Your task to perform on an android device: turn off priority inbox in the gmail app Image 0: 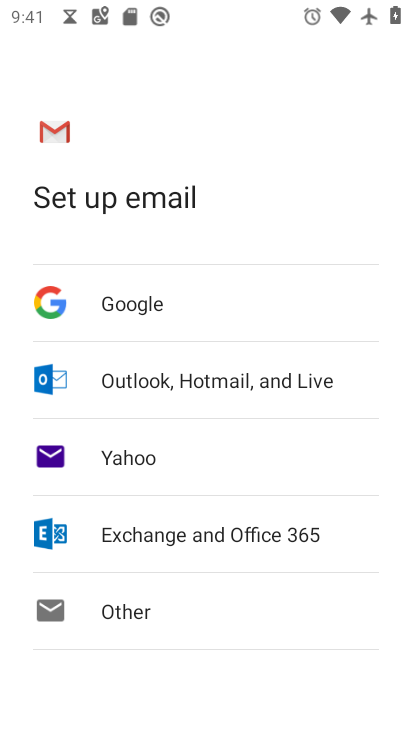
Step 0: press home button
Your task to perform on an android device: turn off priority inbox in the gmail app Image 1: 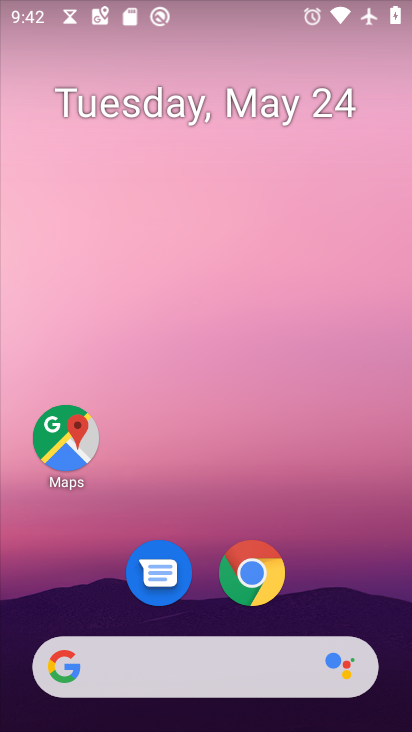
Step 1: drag from (322, 487) to (253, 109)
Your task to perform on an android device: turn off priority inbox in the gmail app Image 2: 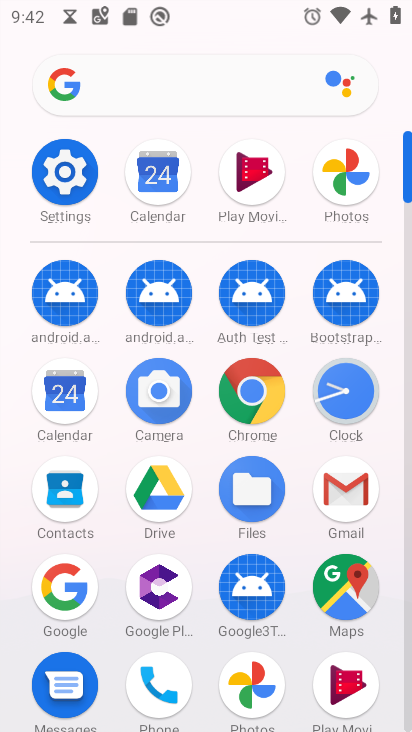
Step 2: click (363, 492)
Your task to perform on an android device: turn off priority inbox in the gmail app Image 3: 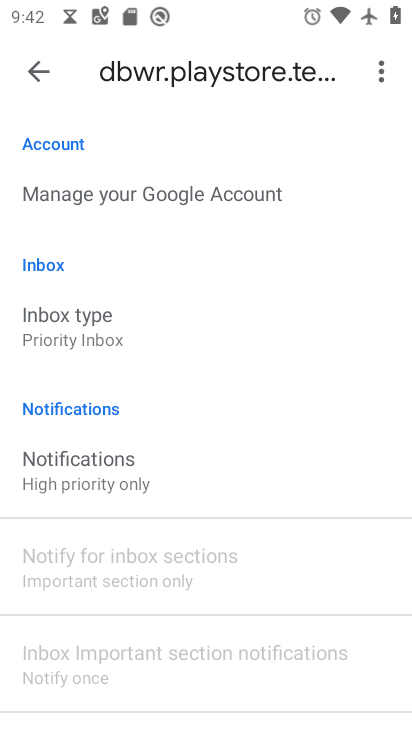
Step 3: click (55, 336)
Your task to perform on an android device: turn off priority inbox in the gmail app Image 4: 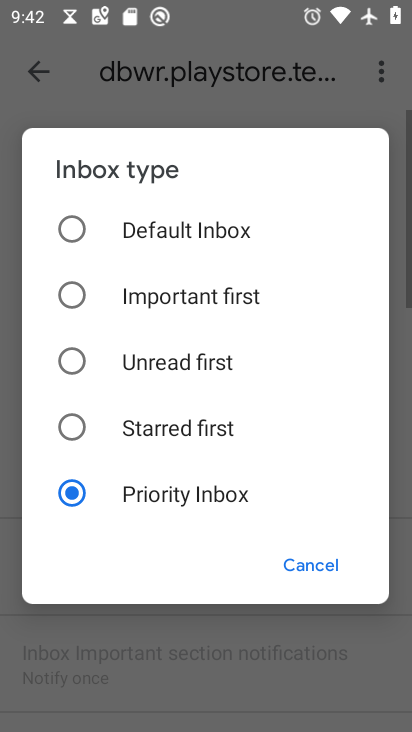
Step 4: click (74, 214)
Your task to perform on an android device: turn off priority inbox in the gmail app Image 5: 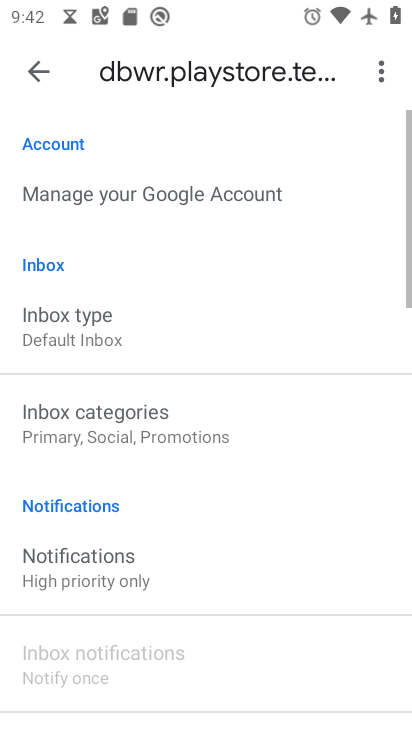
Step 5: task complete